Your task to perform on an android device: Turn on the flashlight Image 0: 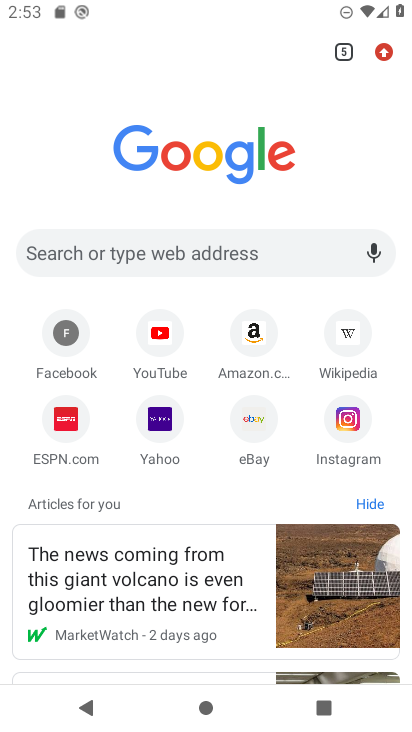
Step 0: drag from (214, 1) to (229, 444)
Your task to perform on an android device: Turn on the flashlight Image 1: 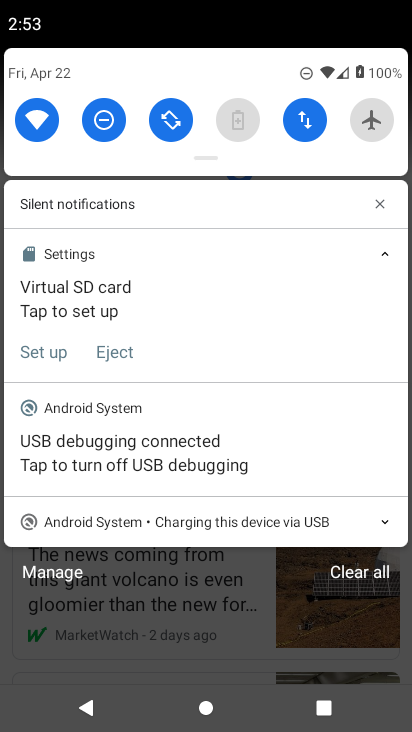
Step 1: task complete